Your task to perform on an android device: turn notification dots off Image 0: 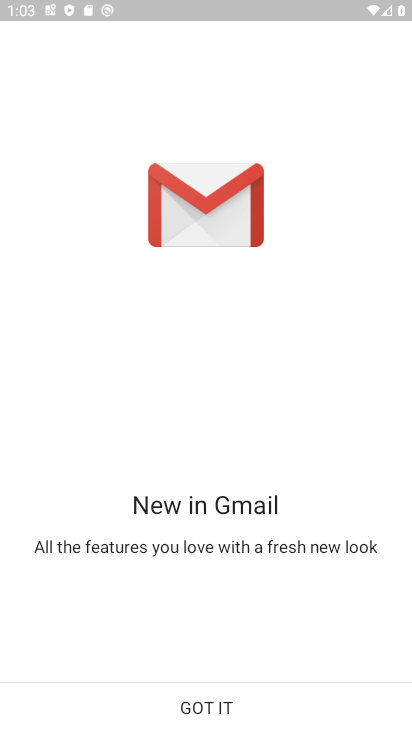
Step 0: press home button
Your task to perform on an android device: turn notification dots off Image 1: 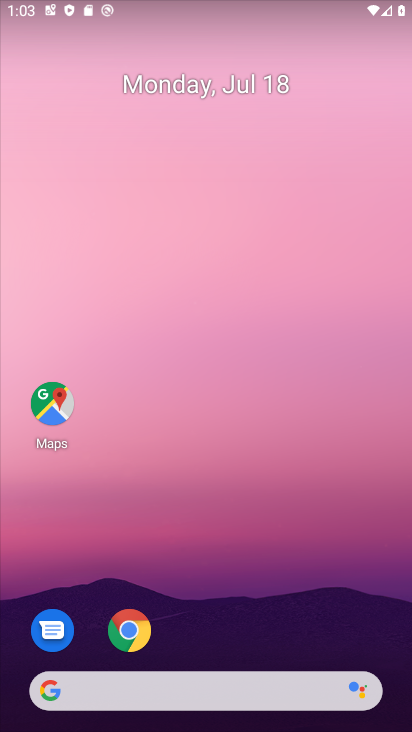
Step 1: drag from (293, 562) to (266, 0)
Your task to perform on an android device: turn notification dots off Image 2: 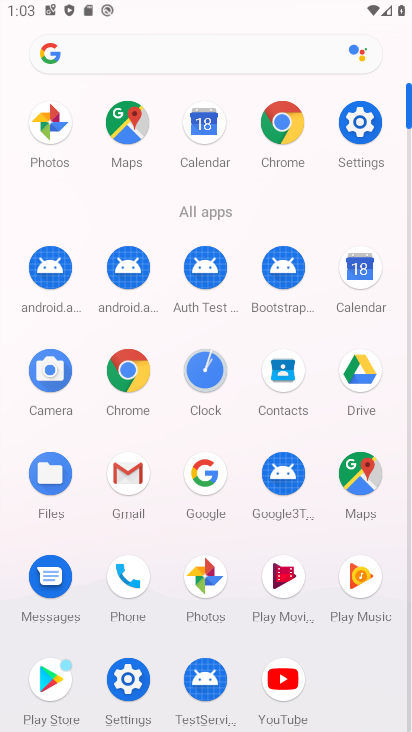
Step 2: click (350, 125)
Your task to perform on an android device: turn notification dots off Image 3: 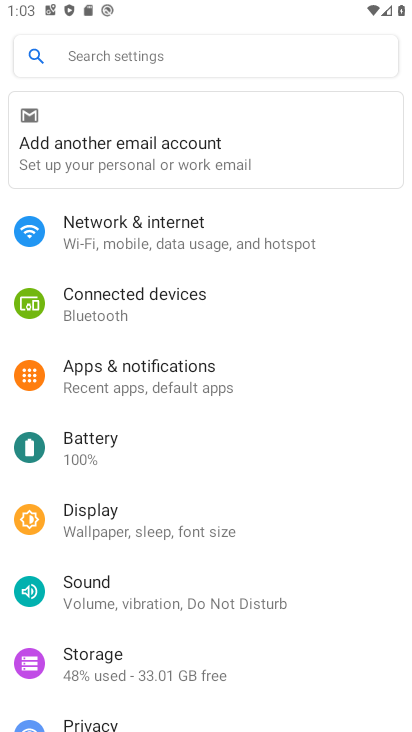
Step 3: click (197, 379)
Your task to perform on an android device: turn notification dots off Image 4: 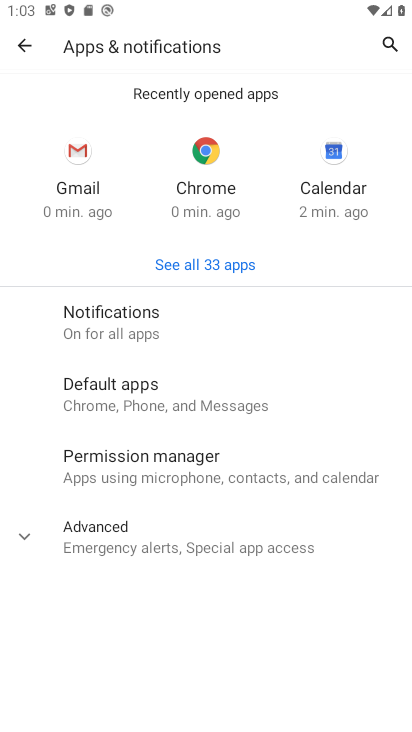
Step 4: click (155, 335)
Your task to perform on an android device: turn notification dots off Image 5: 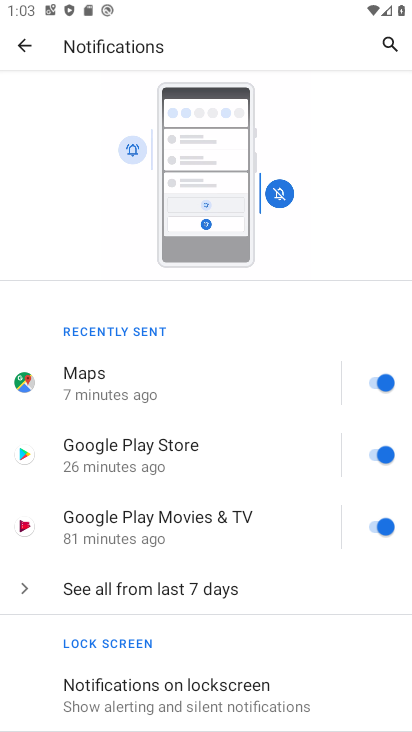
Step 5: drag from (267, 627) to (272, 224)
Your task to perform on an android device: turn notification dots off Image 6: 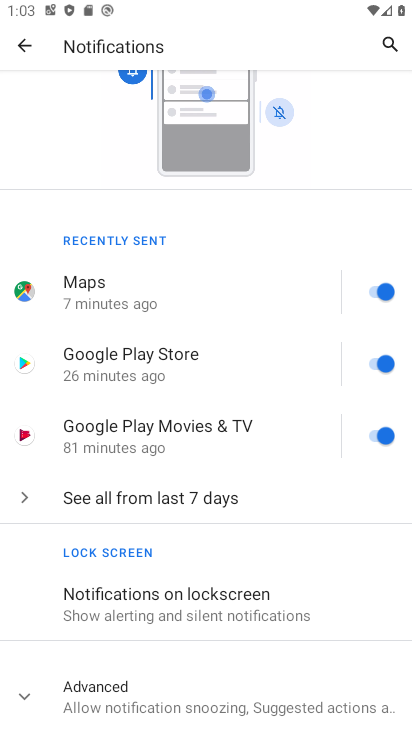
Step 6: click (25, 696)
Your task to perform on an android device: turn notification dots off Image 7: 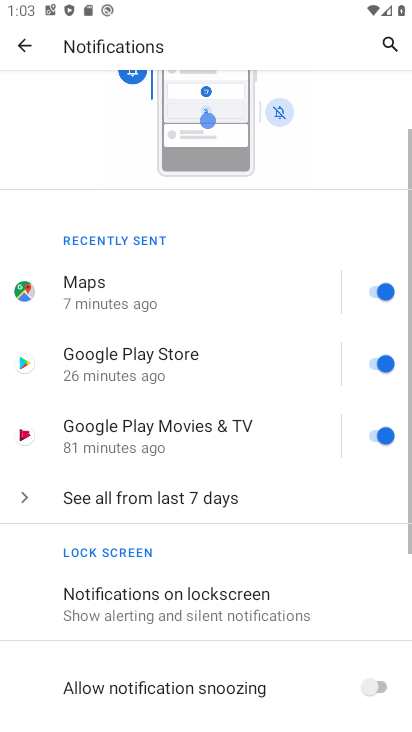
Step 7: drag from (210, 639) to (233, 172)
Your task to perform on an android device: turn notification dots off Image 8: 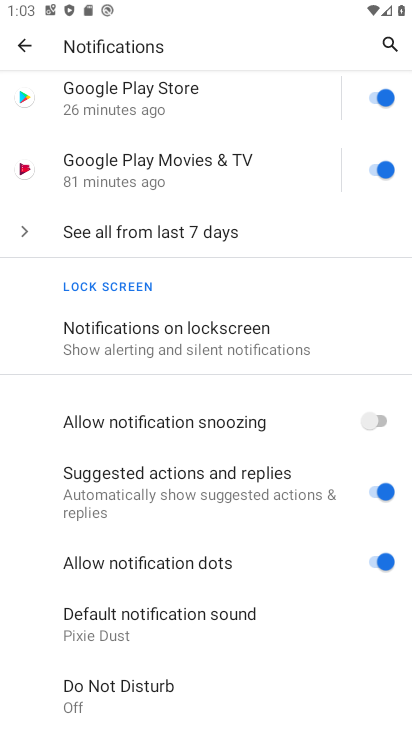
Step 8: click (379, 556)
Your task to perform on an android device: turn notification dots off Image 9: 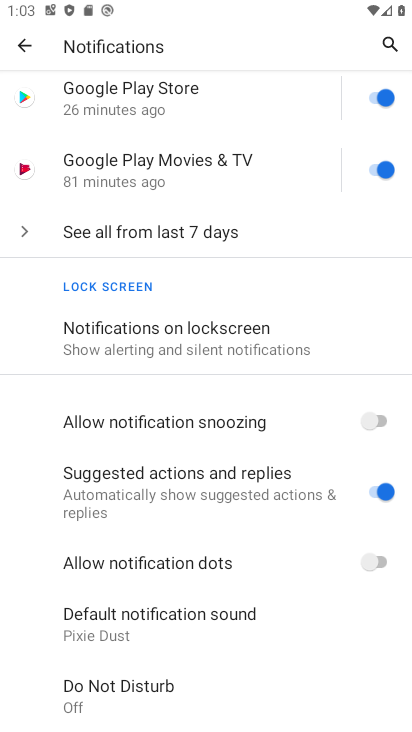
Step 9: task complete